Your task to perform on an android device: empty trash in the gmail app Image 0: 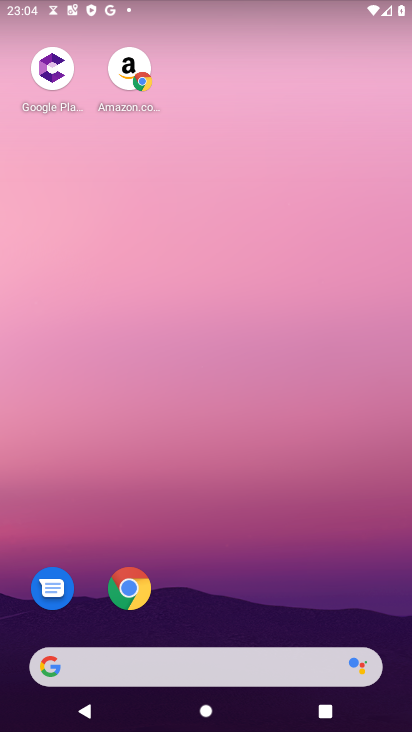
Step 0: drag from (233, 671) to (219, 130)
Your task to perform on an android device: empty trash in the gmail app Image 1: 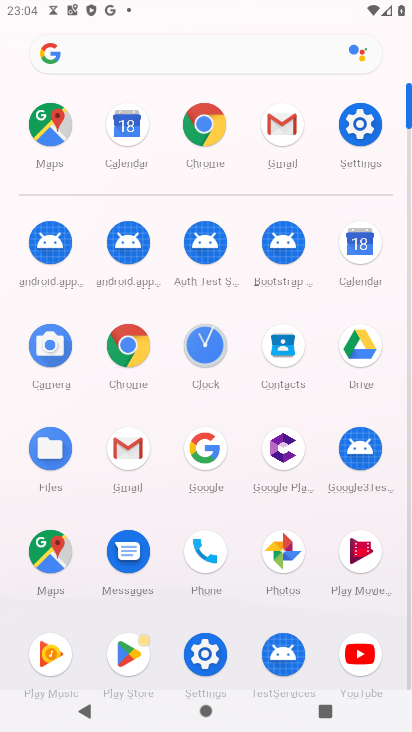
Step 1: click (283, 122)
Your task to perform on an android device: empty trash in the gmail app Image 2: 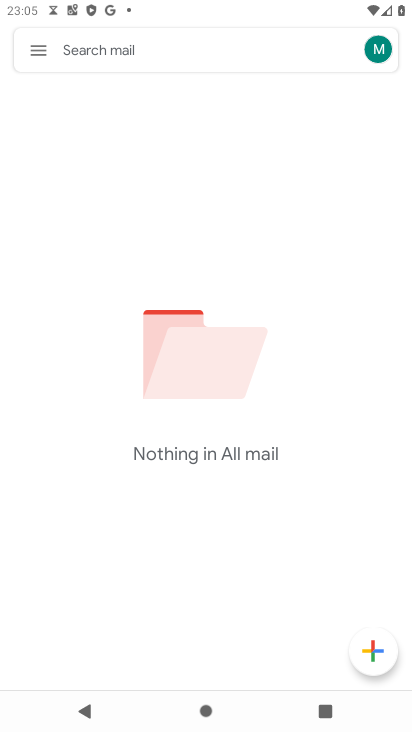
Step 2: click (40, 47)
Your task to perform on an android device: empty trash in the gmail app Image 3: 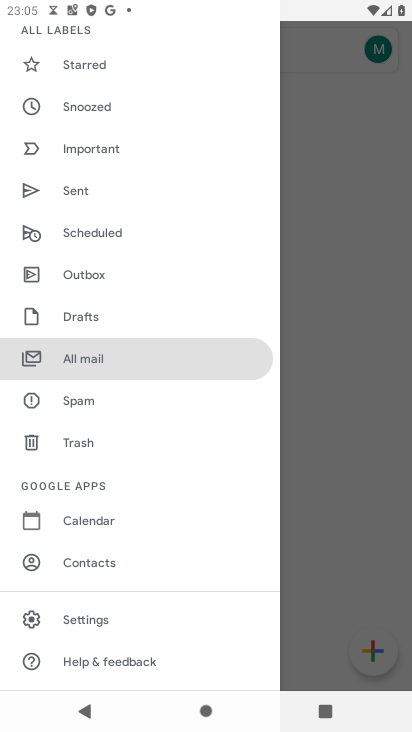
Step 3: click (91, 448)
Your task to perform on an android device: empty trash in the gmail app Image 4: 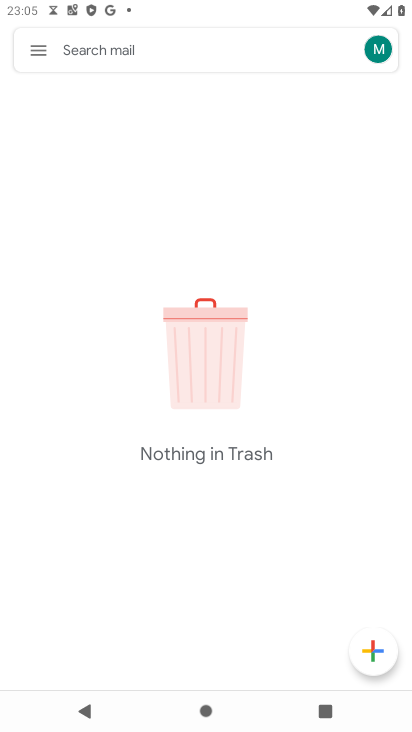
Step 4: task complete